Your task to perform on an android device: find photos in the google photos app Image 0: 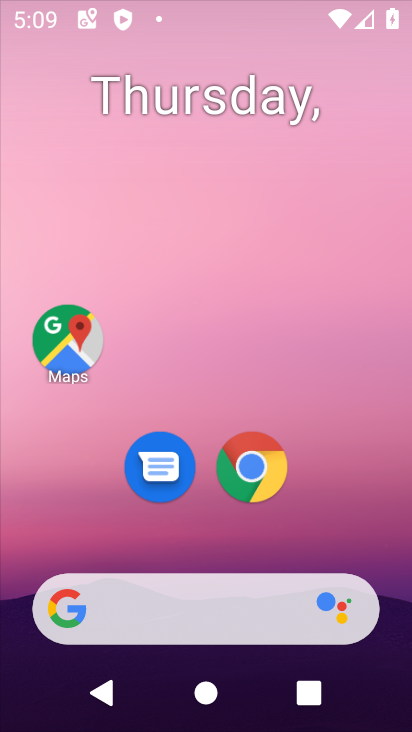
Step 0: drag from (398, 535) to (315, 224)
Your task to perform on an android device: find photos in the google photos app Image 1: 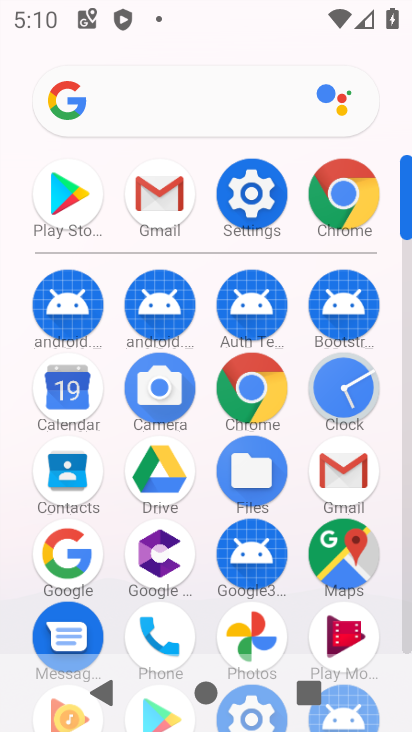
Step 1: click (261, 629)
Your task to perform on an android device: find photos in the google photos app Image 2: 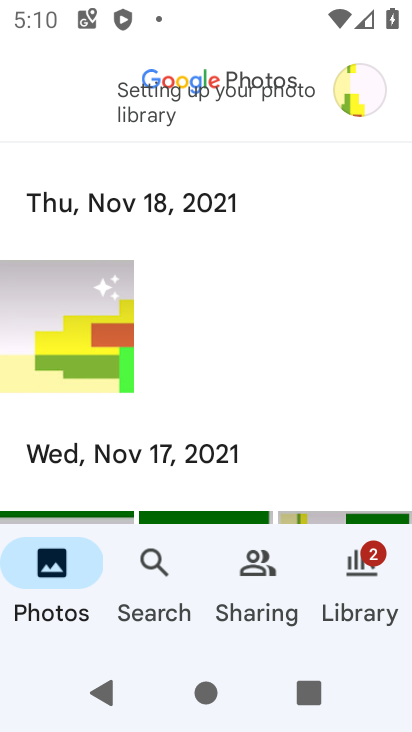
Step 2: task complete